Your task to perform on an android device: Go to Wikipedia Image 0: 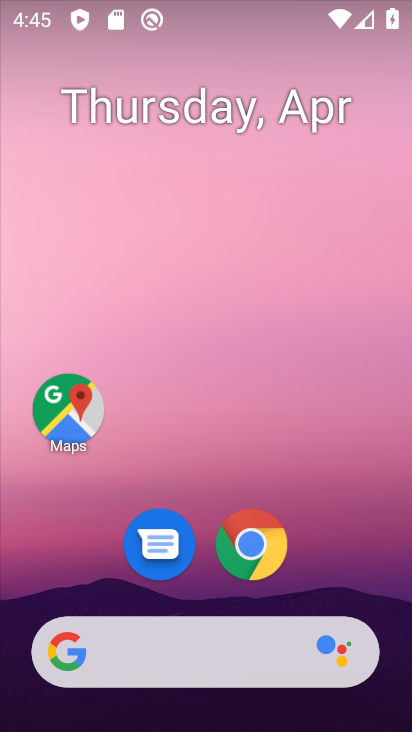
Step 0: drag from (312, 556) to (148, 85)
Your task to perform on an android device: Go to Wikipedia Image 1: 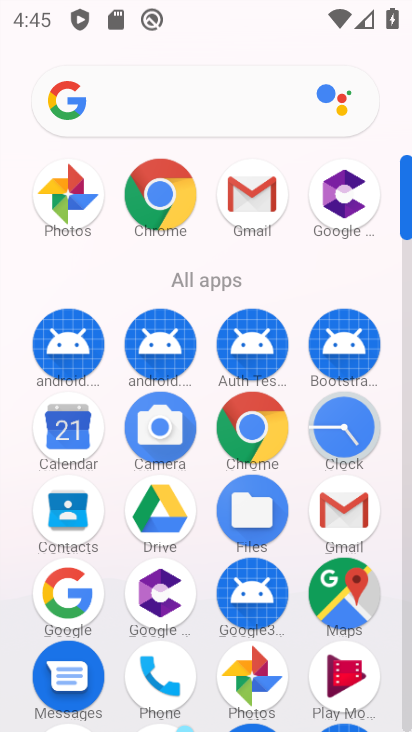
Step 1: click (142, 190)
Your task to perform on an android device: Go to Wikipedia Image 2: 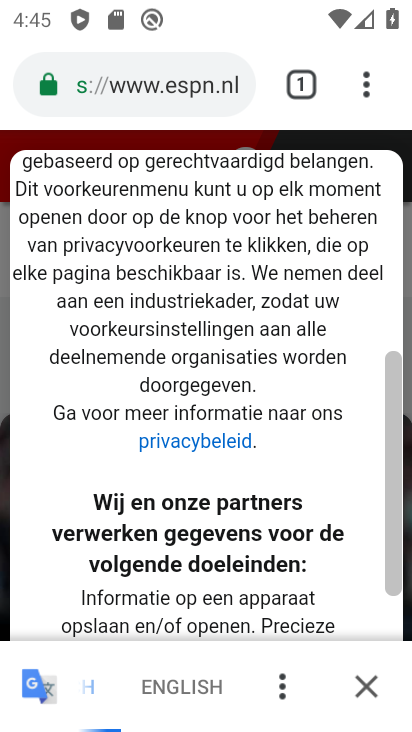
Step 2: click (298, 89)
Your task to perform on an android device: Go to Wikipedia Image 3: 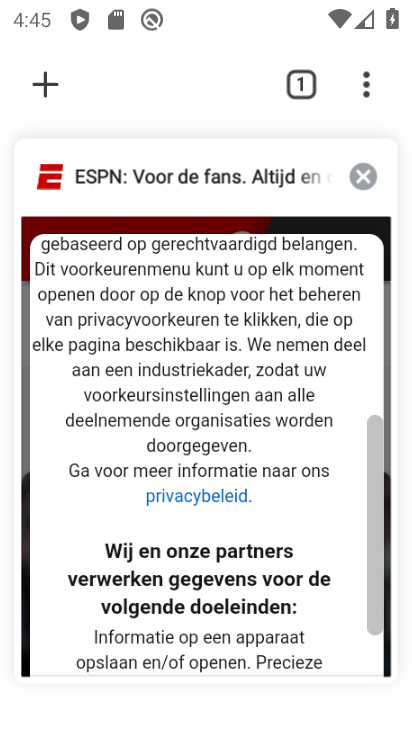
Step 3: click (51, 88)
Your task to perform on an android device: Go to Wikipedia Image 4: 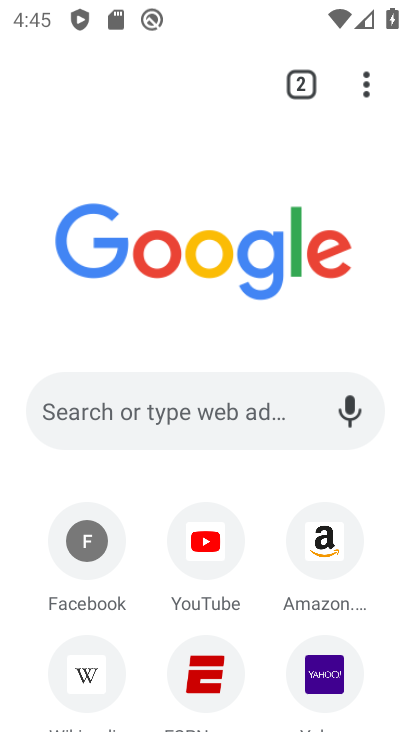
Step 4: click (93, 664)
Your task to perform on an android device: Go to Wikipedia Image 5: 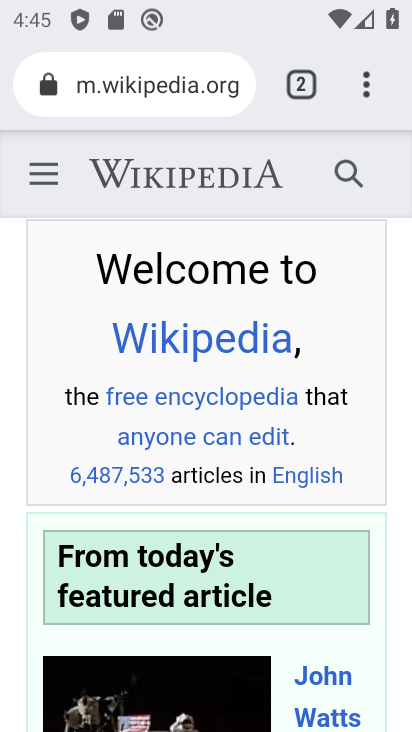
Step 5: task complete